Your task to perform on an android device: change text size in settings app Image 0: 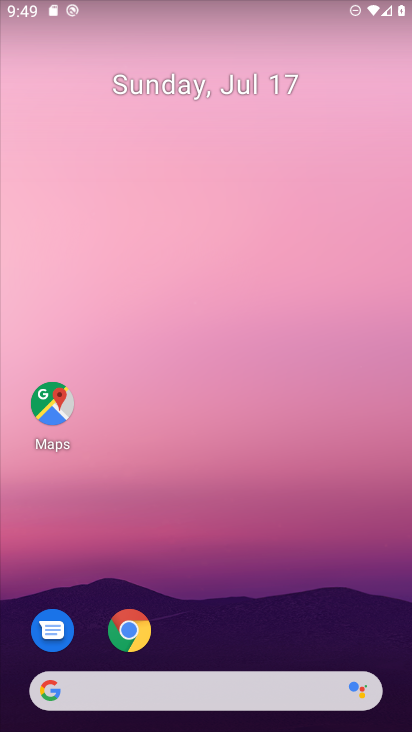
Step 0: drag from (186, 632) to (204, 250)
Your task to perform on an android device: change text size in settings app Image 1: 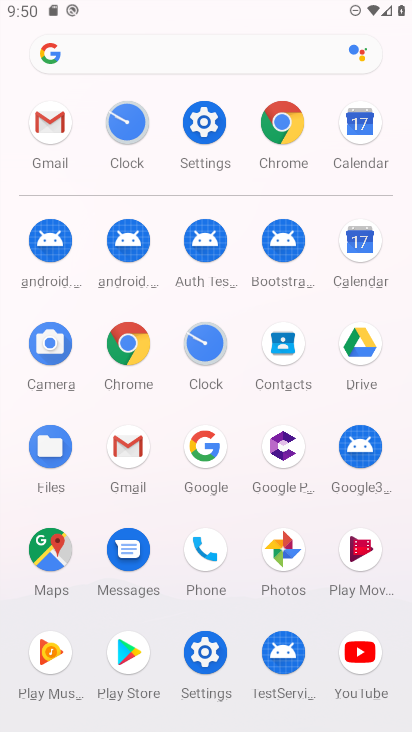
Step 1: click (216, 124)
Your task to perform on an android device: change text size in settings app Image 2: 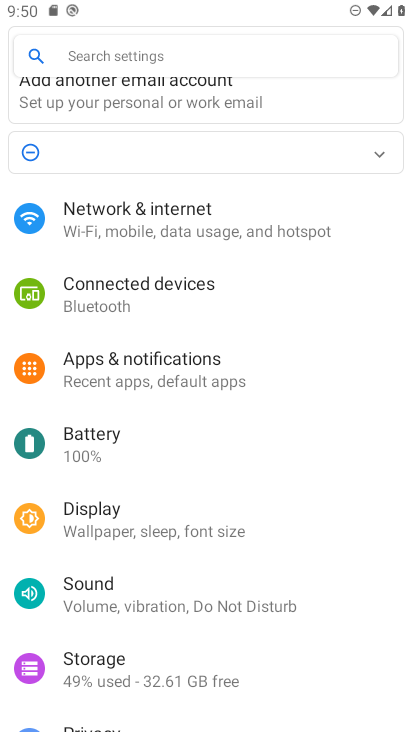
Step 2: drag from (168, 674) to (233, 162)
Your task to perform on an android device: change text size in settings app Image 3: 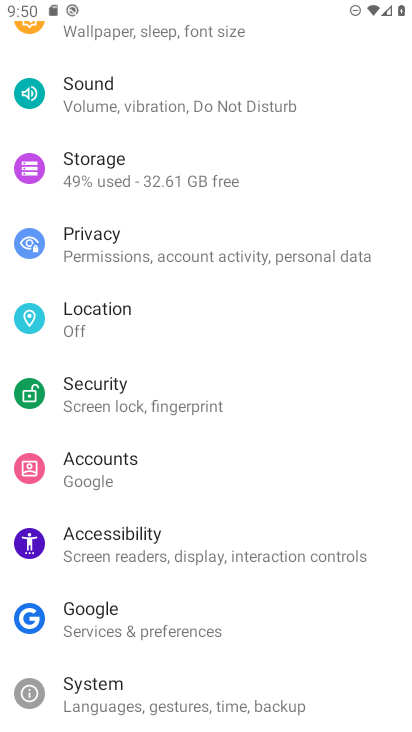
Step 3: drag from (213, 612) to (259, 247)
Your task to perform on an android device: change text size in settings app Image 4: 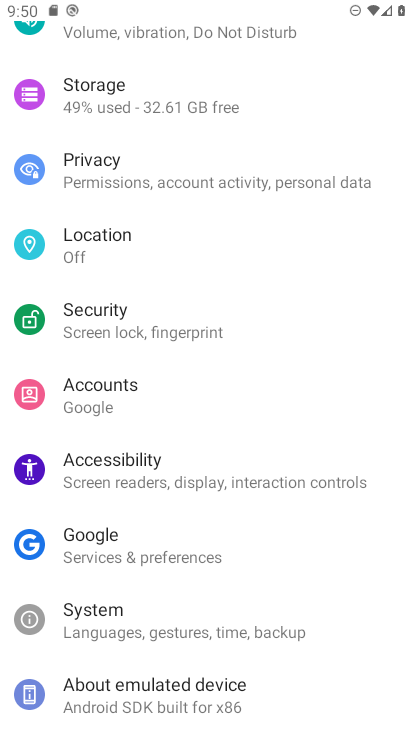
Step 4: click (120, 615)
Your task to perform on an android device: change text size in settings app Image 5: 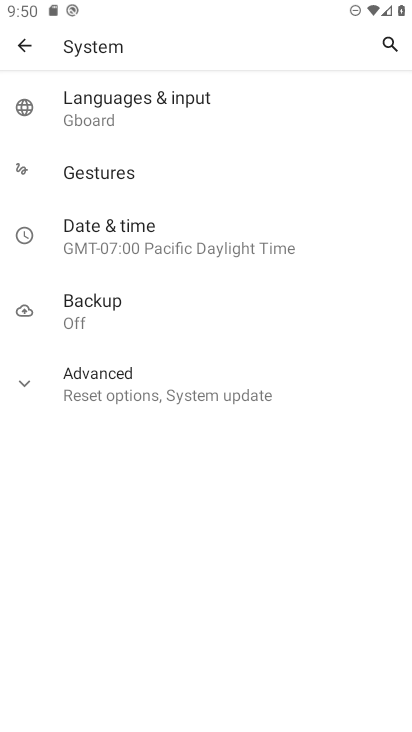
Step 5: click (27, 47)
Your task to perform on an android device: change text size in settings app Image 6: 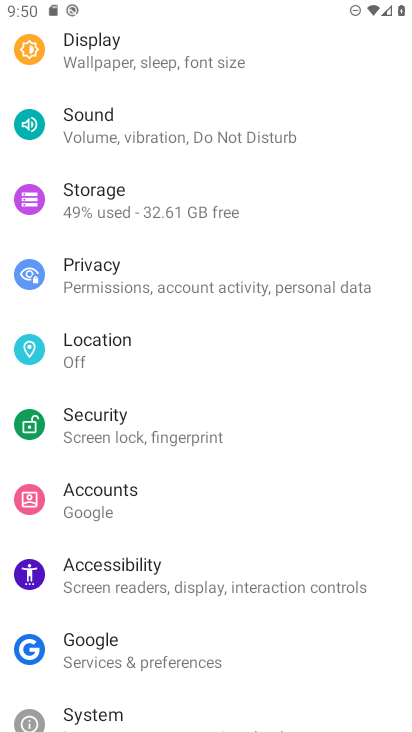
Step 6: click (111, 585)
Your task to perform on an android device: change text size in settings app Image 7: 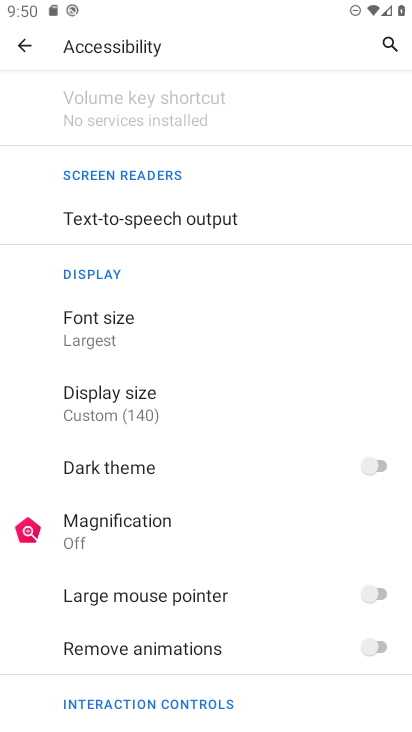
Step 7: click (112, 312)
Your task to perform on an android device: change text size in settings app Image 8: 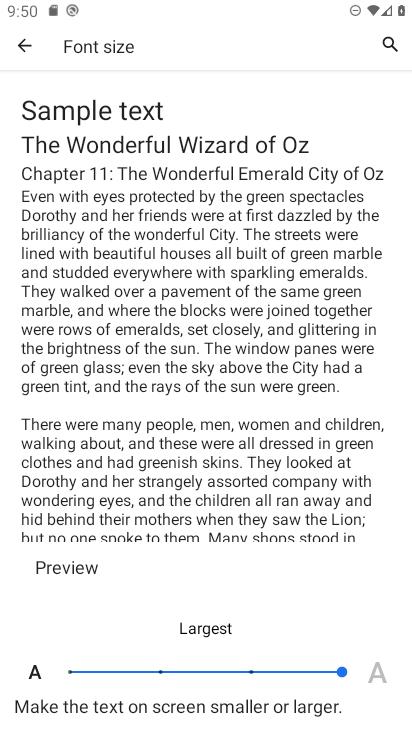
Step 8: click (248, 671)
Your task to perform on an android device: change text size in settings app Image 9: 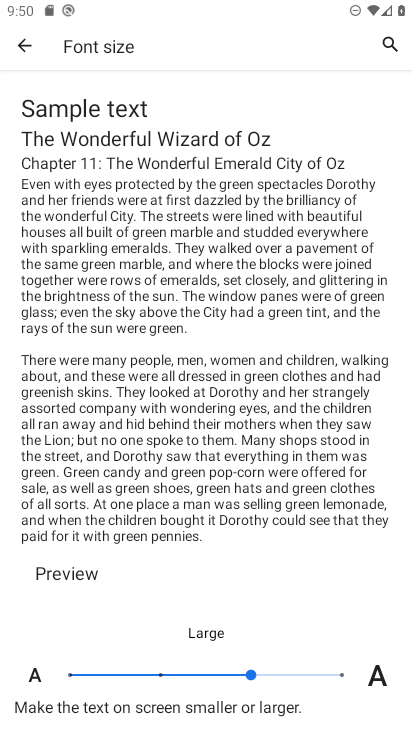
Step 9: task complete